Your task to perform on an android device: change the clock display to digital Image 0: 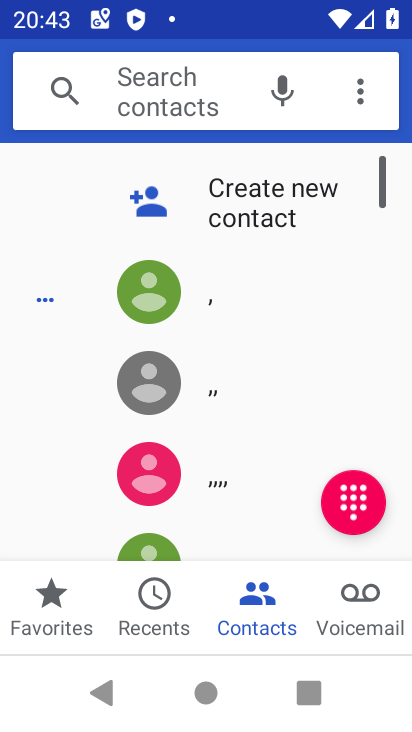
Step 0: press home button
Your task to perform on an android device: change the clock display to digital Image 1: 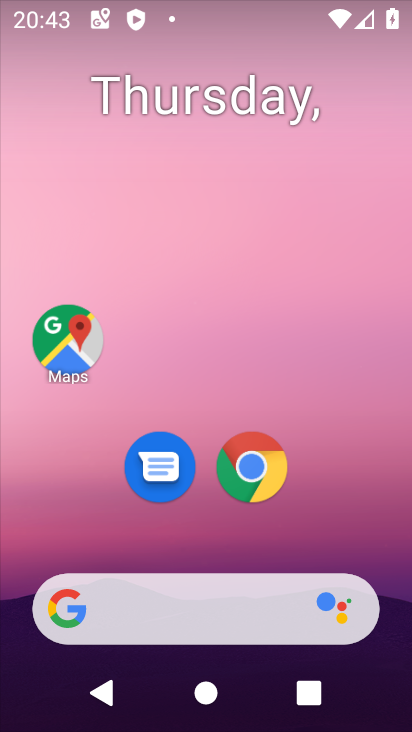
Step 1: drag from (310, 508) to (357, 151)
Your task to perform on an android device: change the clock display to digital Image 2: 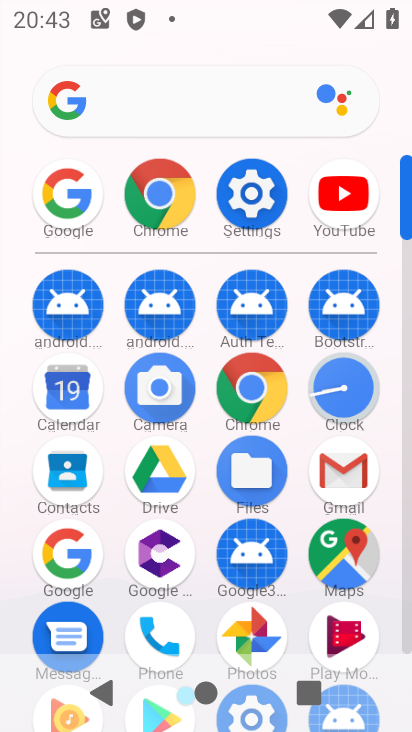
Step 2: click (354, 389)
Your task to perform on an android device: change the clock display to digital Image 3: 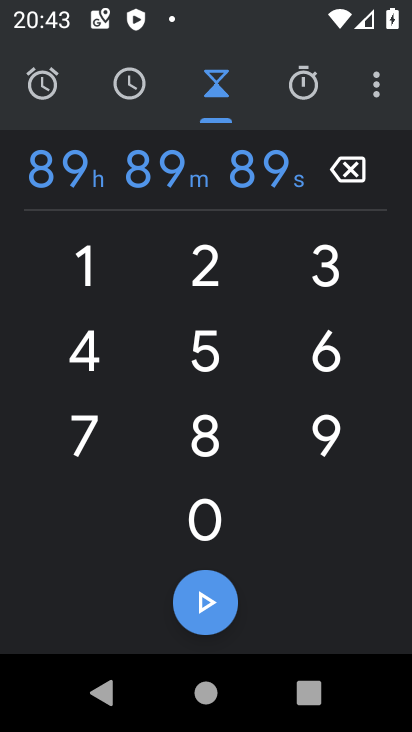
Step 3: click (371, 77)
Your task to perform on an android device: change the clock display to digital Image 4: 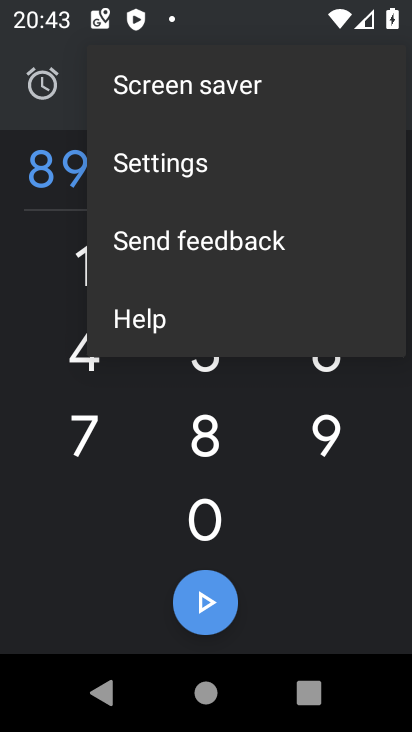
Step 4: click (172, 164)
Your task to perform on an android device: change the clock display to digital Image 5: 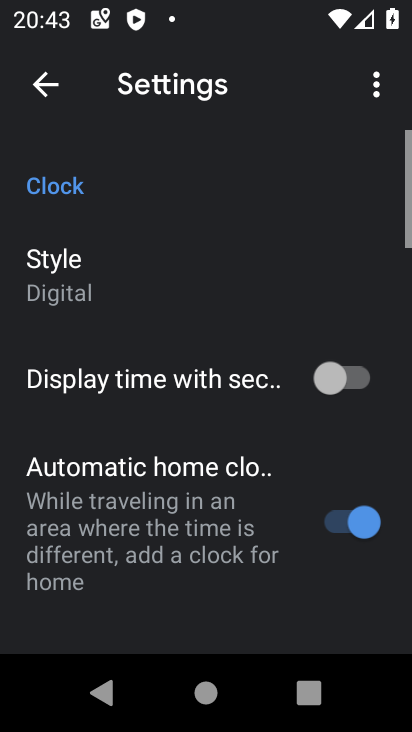
Step 5: click (105, 269)
Your task to perform on an android device: change the clock display to digital Image 6: 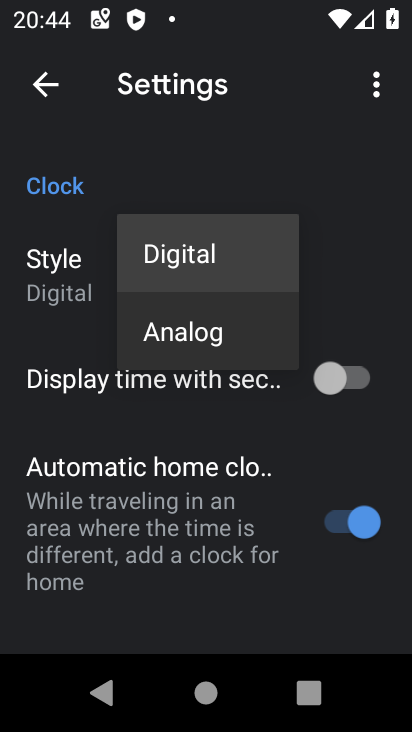
Step 6: task complete